Your task to perform on an android device: toggle notification dots Image 0: 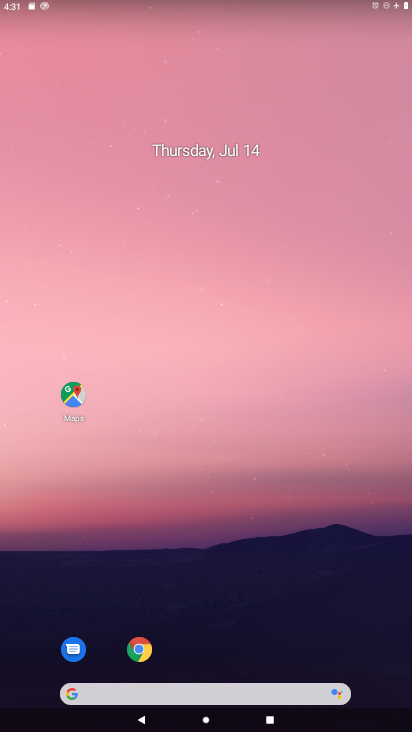
Step 0: drag from (210, 658) to (249, 72)
Your task to perform on an android device: toggle notification dots Image 1: 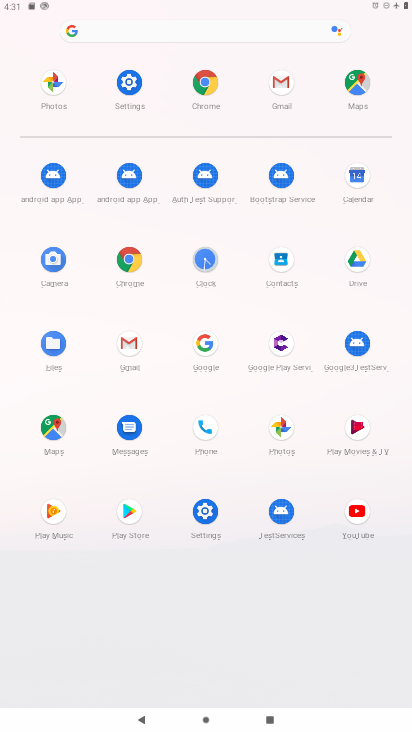
Step 1: click (210, 517)
Your task to perform on an android device: toggle notification dots Image 2: 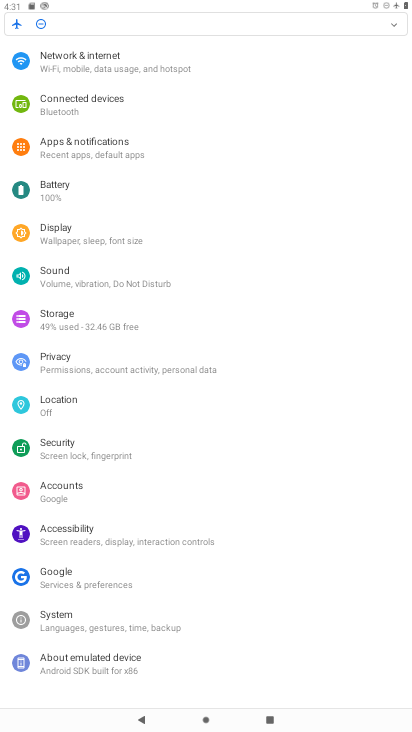
Step 2: click (96, 151)
Your task to perform on an android device: toggle notification dots Image 3: 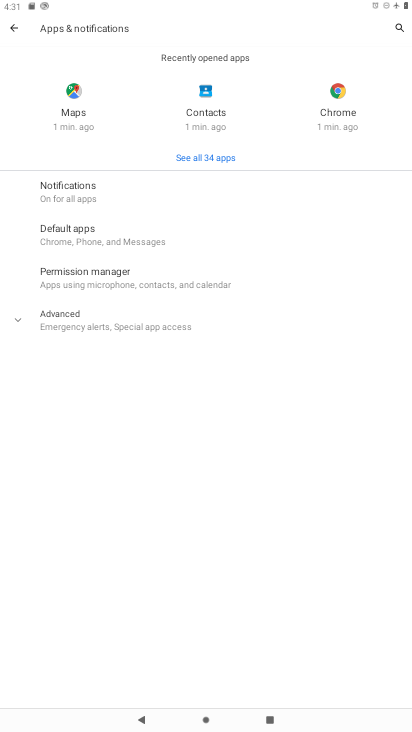
Step 3: click (90, 191)
Your task to perform on an android device: toggle notification dots Image 4: 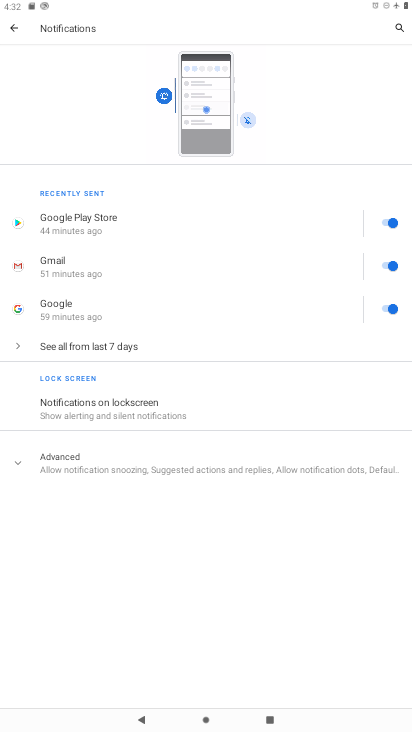
Step 4: click (81, 455)
Your task to perform on an android device: toggle notification dots Image 5: 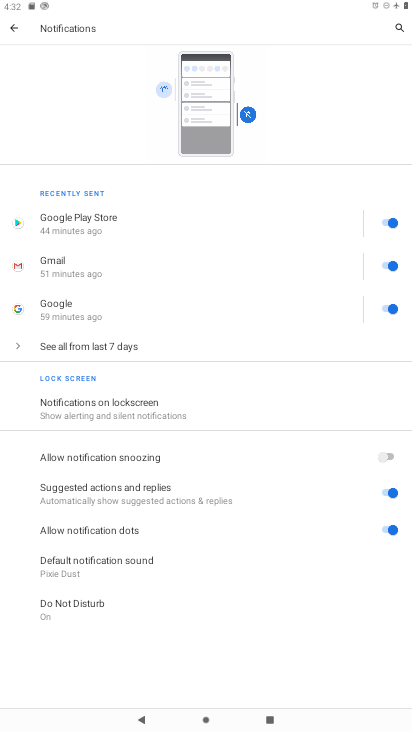
Step 5: click (367, 531)
Your task to perform on an android device: toggle notification dots Image 6: 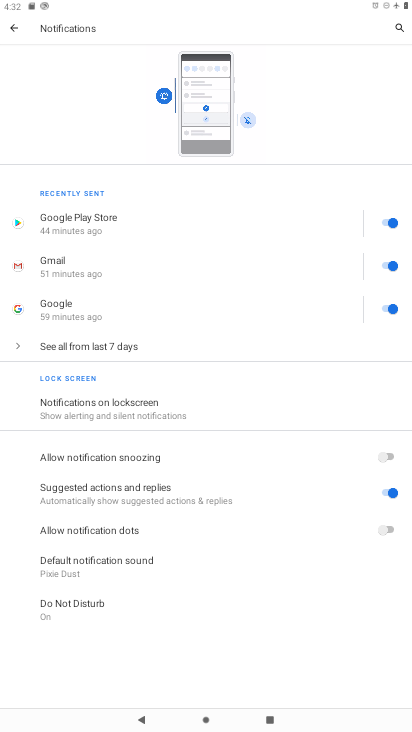
Step 6: task complete